Your task to perform on an android device: turn off improve location accuracy Image 0: 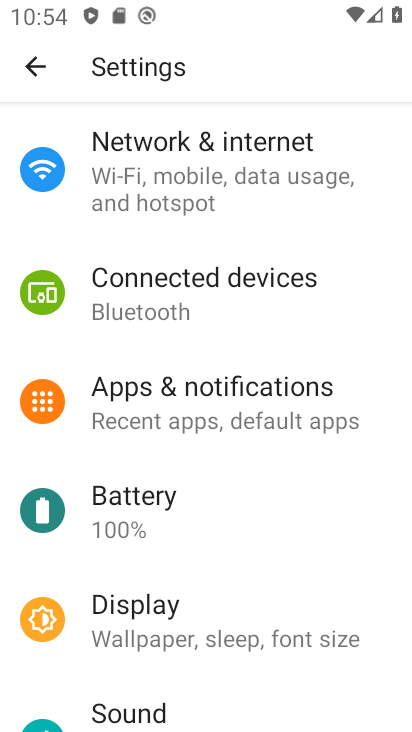
Step 0: drag from (150, 576) to (174, 27)
Your task to perform on an android device: turn off improve location accuracy Image 1: 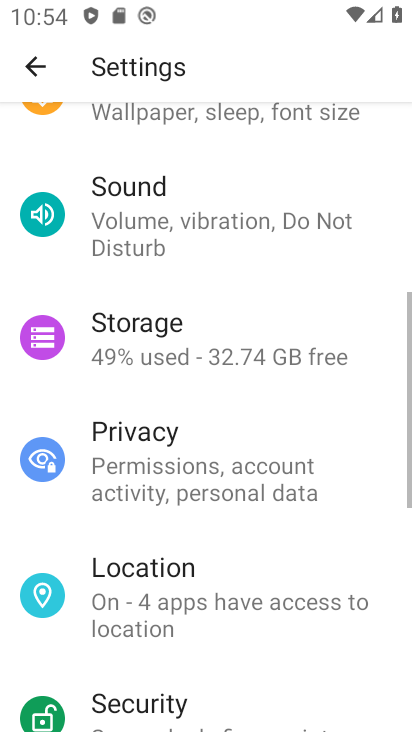
Step 1: click (153, 596)
Your task to perform on an android device: turn off improve location accuracy Image 2: 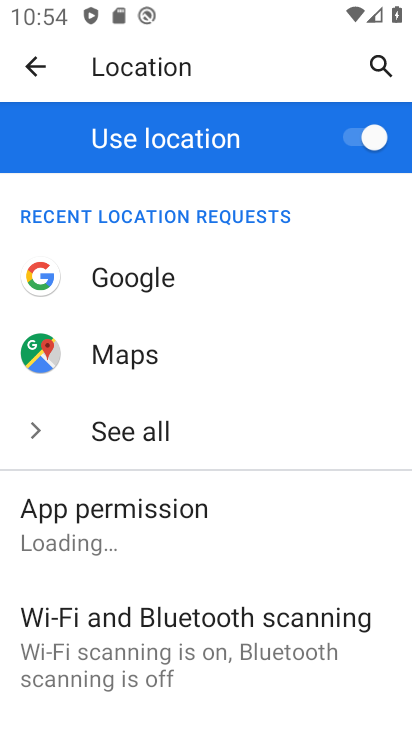
Step 2: drag from (198, 580) to (200, 119)
Your task to perform on an android device: turn off improve location accuracy Image 3: 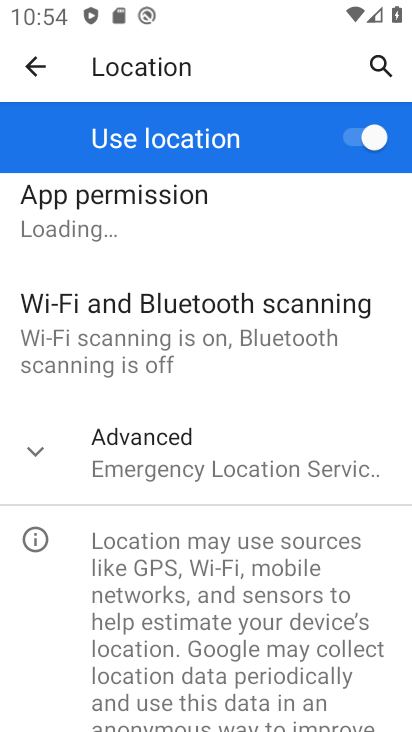
Step 3: click (121, 460)
Your task to perform on an android device: turn off improve location accuracy Image 4: 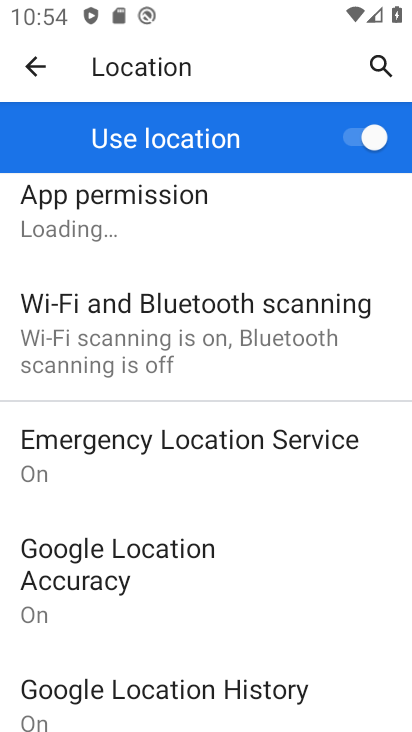
Step 4: click (128, 585)
Your task to perform on an android device: turn off improve location accuracy Image 5: 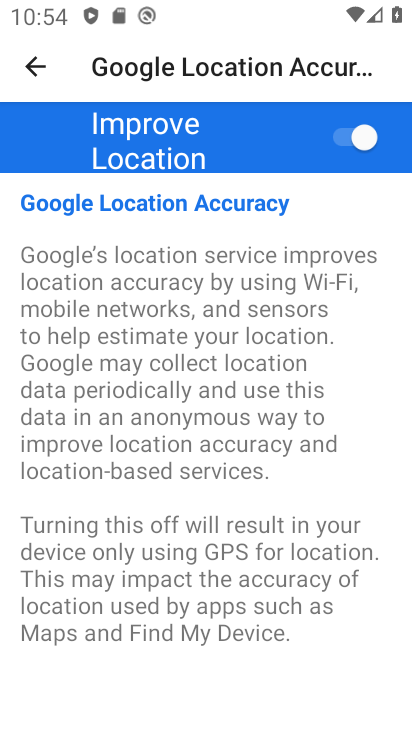
Step 5: click (348, 137)
Your task to perform on an android device: turn off improve location accuracy Image 6: 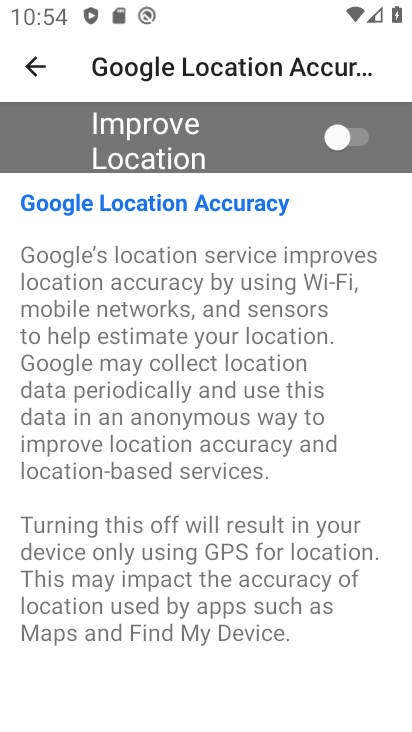
Step 6: task complete